Your task to perform on an android device: Go to calendar. Show me events next week Image 0: 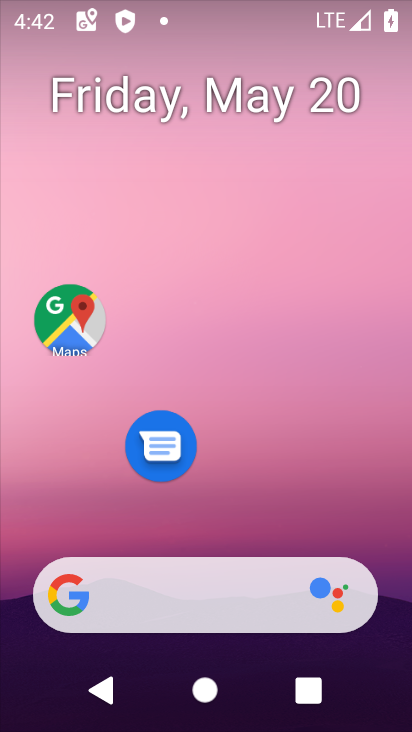
Step 0: drag from (229, 522) to (255, 32)
Your task to perform on an android device: Go to calendar. Show me events next week Image 1: 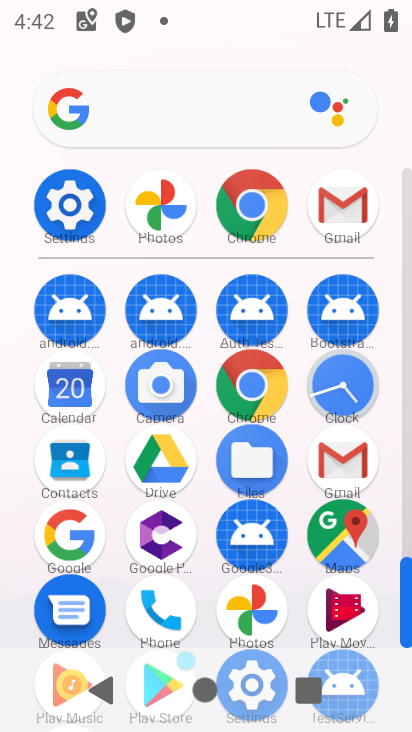
Step 1: click (81, 399)
Your task to perform on an android device: Go to calendar. Show me events next week Image 2: 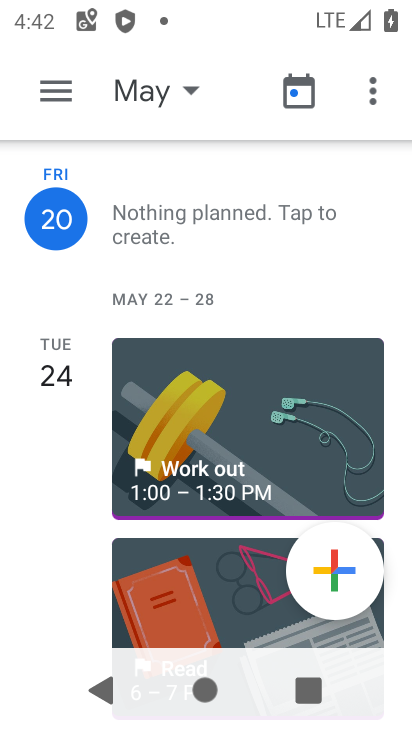
Step 2: click (69, 96)
Your task to perform on an android device: Go to calendar. Show me events next week Image 3: 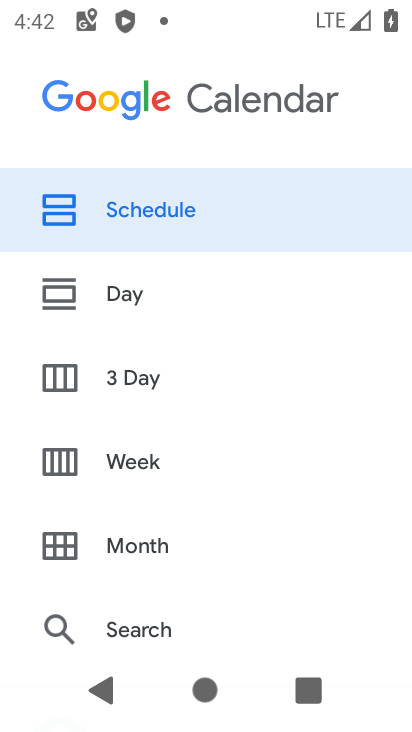
Step 3: click (160, 454)
Your task to perform on an android device: Go to calendar. Show me events next week Image 4: 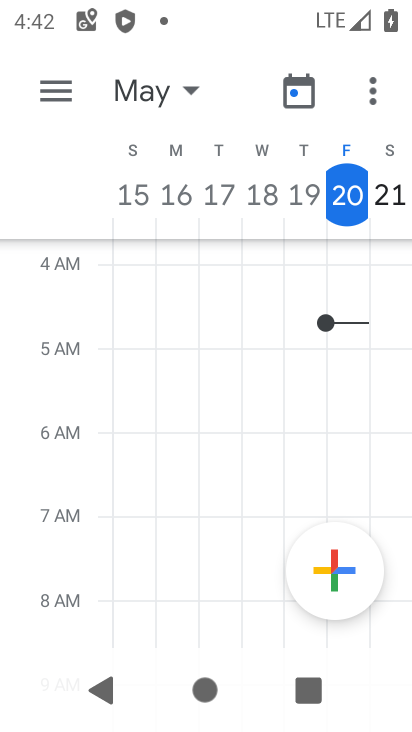
Step 4: task complete